Your task to perform on an android device: Search for "macbook air" on target, select the first entry, and add it to the cart. Image 0: 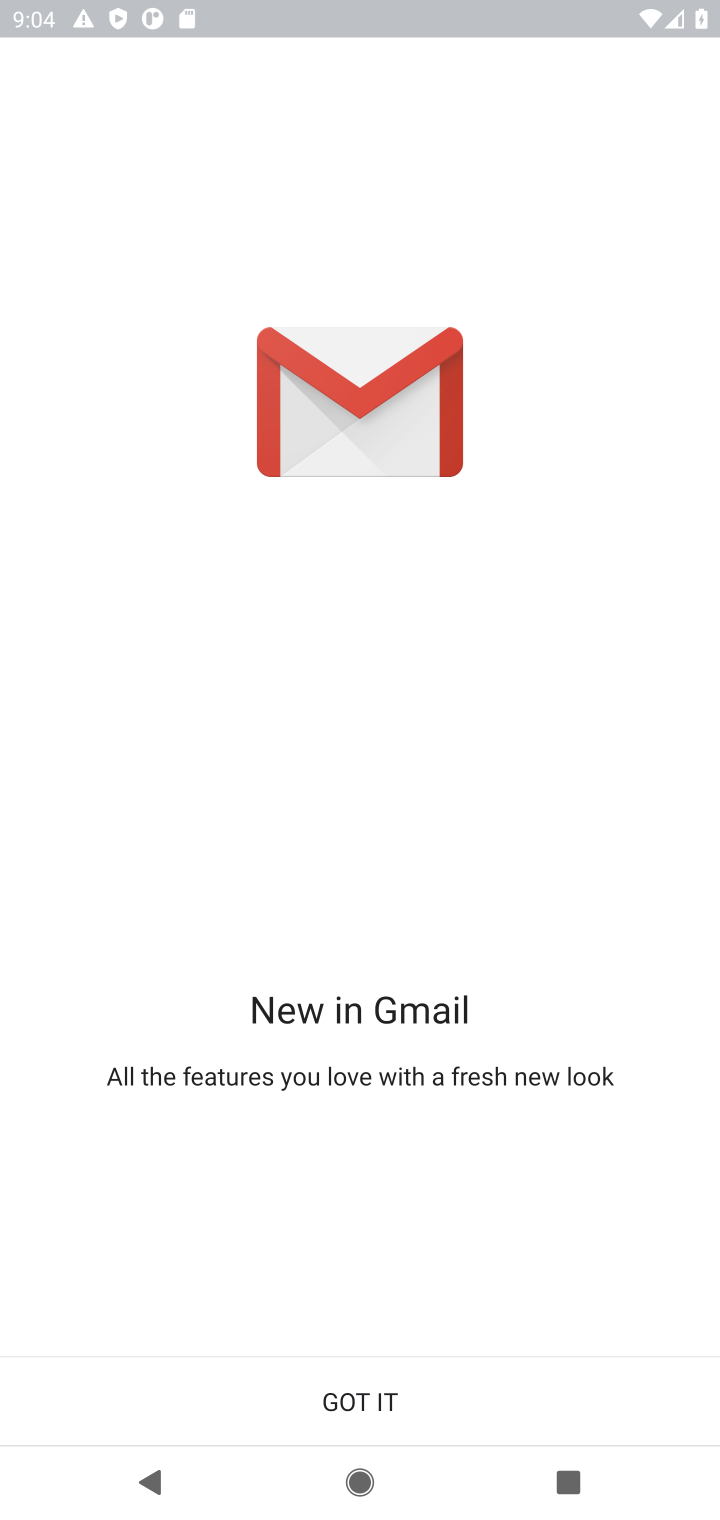
Step 0: press home button
Your task to perform on an android device: Search for "macbook air" on target, select the first entry, and add it to the cart. Image 1: 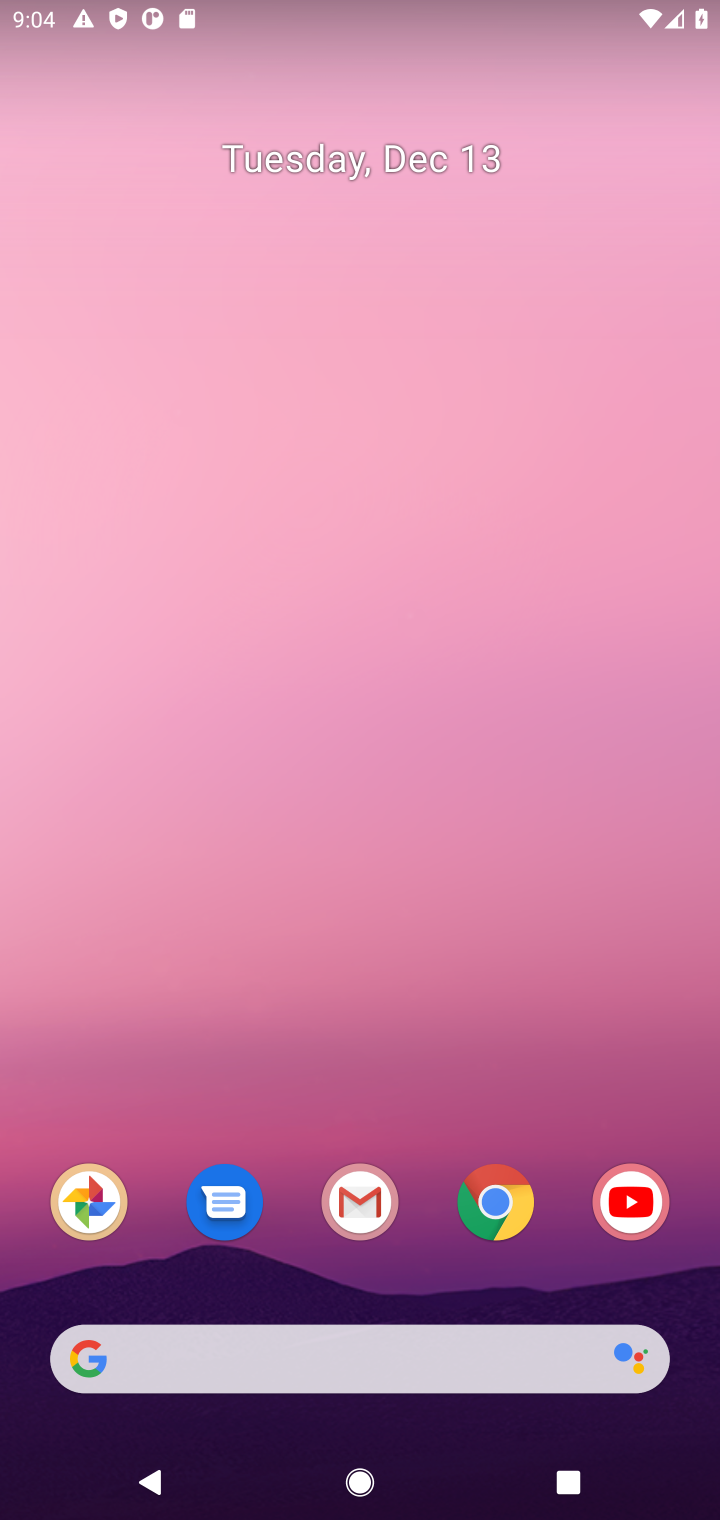
Step 1: click (503, 1209)
Your task to perform on an android device: Search for "macbook air" on target, select the first entry, and add it to the cart. Image 2: 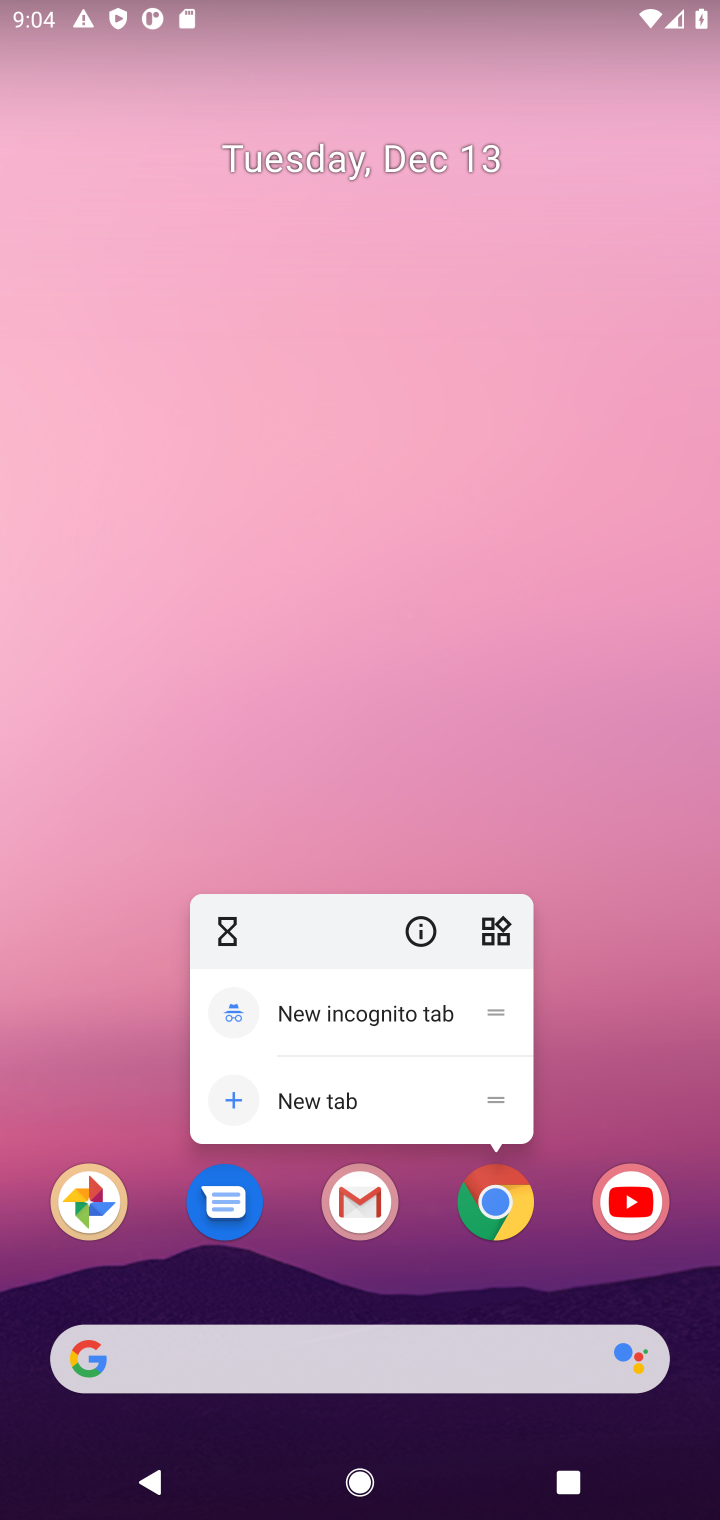
Step 2: click (509, 1209)
Your task to perform on an android device: Search for "macbook air" on target, select the first entry, and add it to the cart. Image 3: 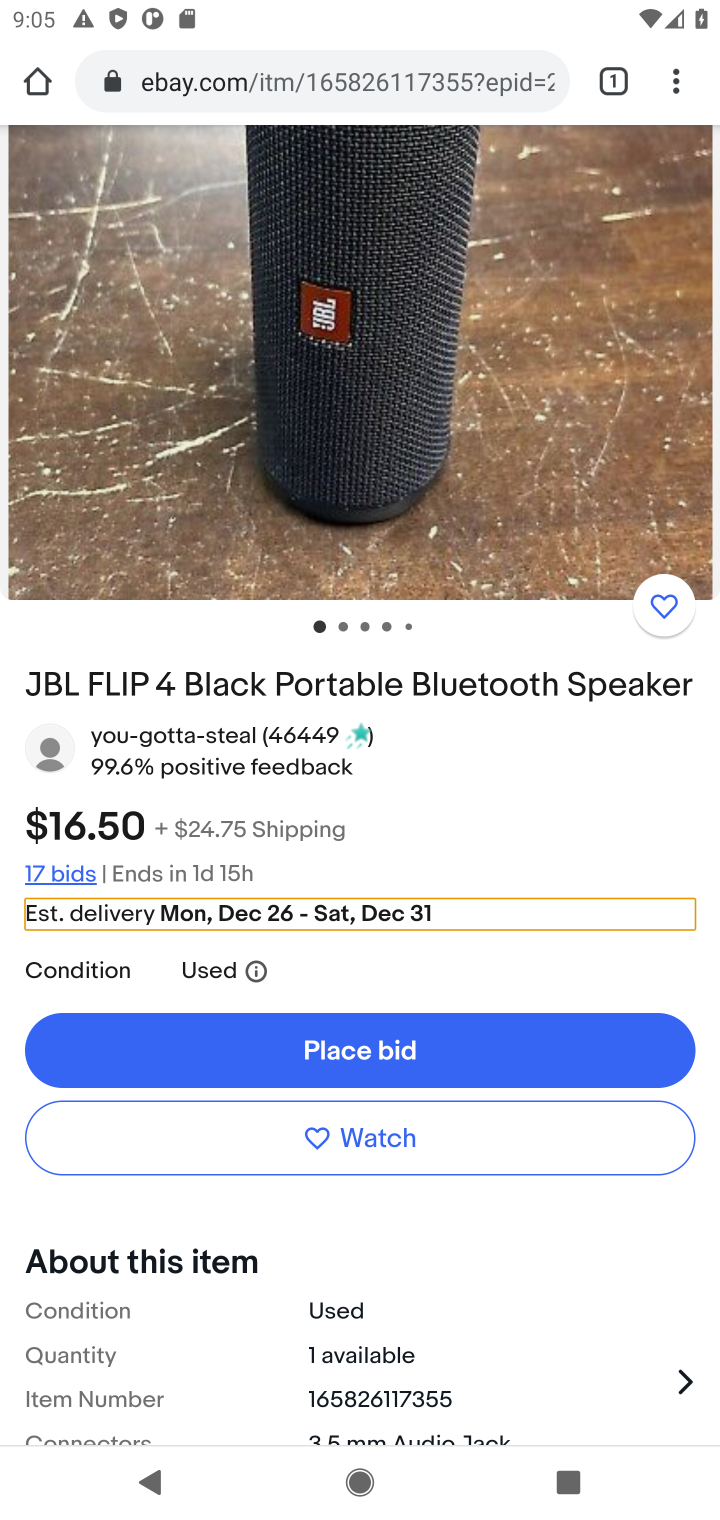
Step 3: click (331, 99)
Your task to perform on an android device: Search for "macbook air" on target, select the first entry, and add it to the cart. Image 4: 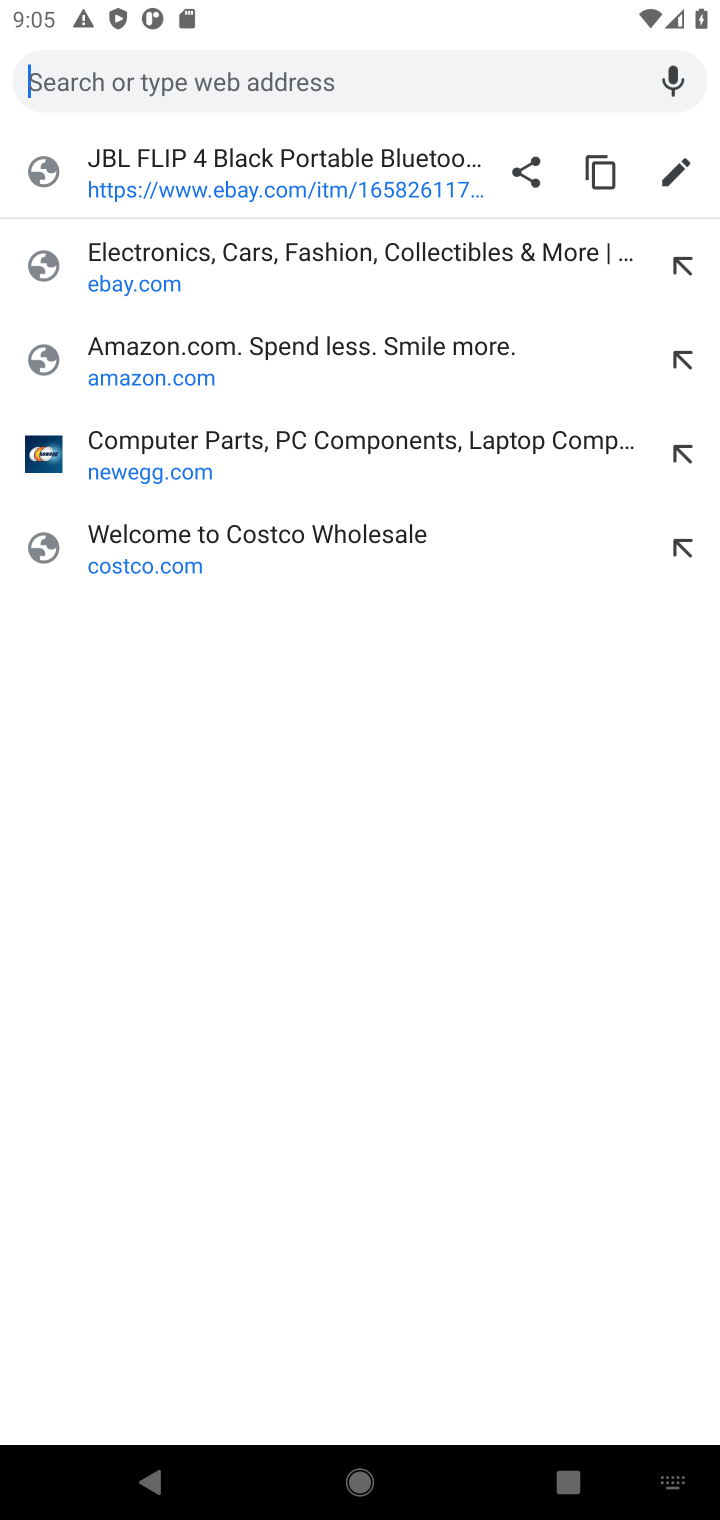
Step 4: type "target.com"
Your task to perform on an android device: Search for "macbook air" on target, select the first entry, and add it to the cart. Image 5: 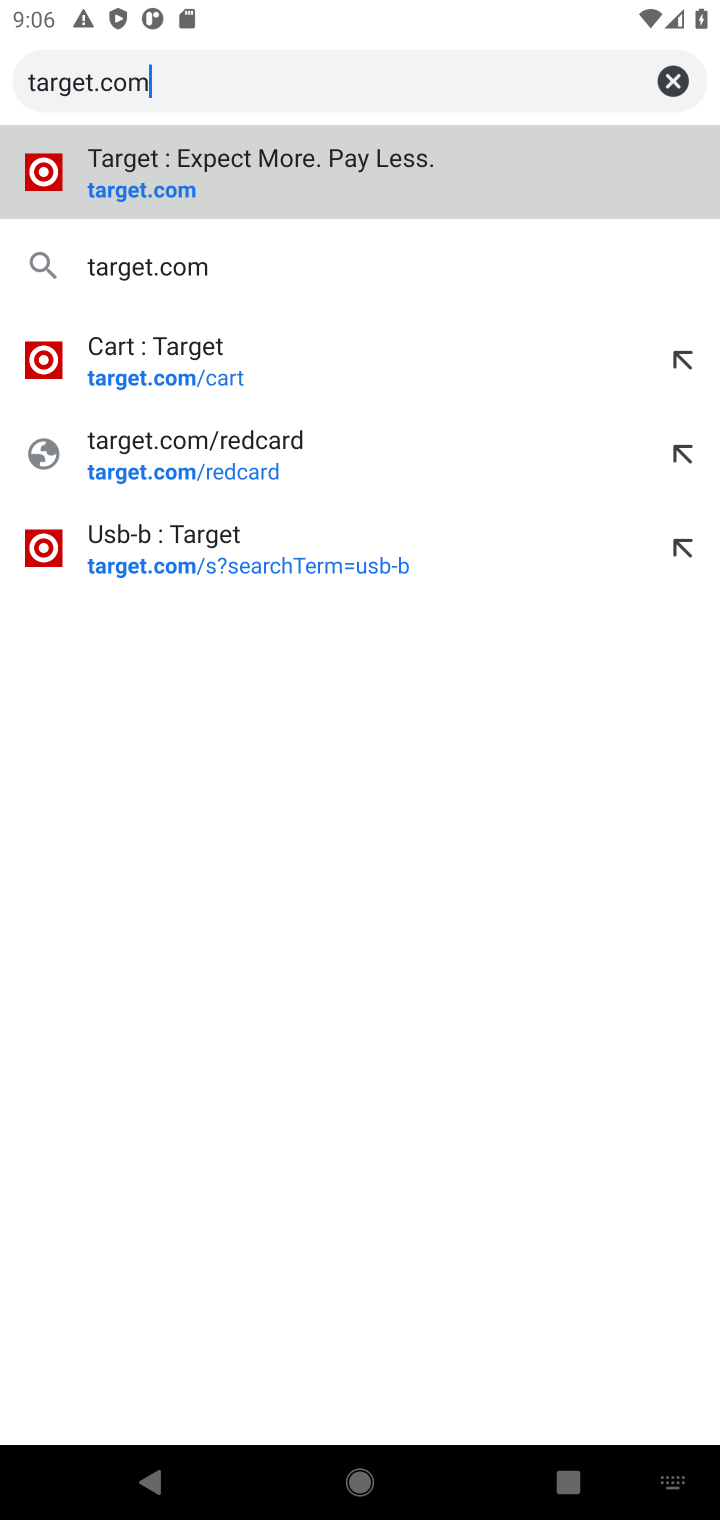
Step 5: click (112, 194)
Your task to perform on an android device: Search for "macbook air" on target, select the first entry, and add it to the cart. Image 6: 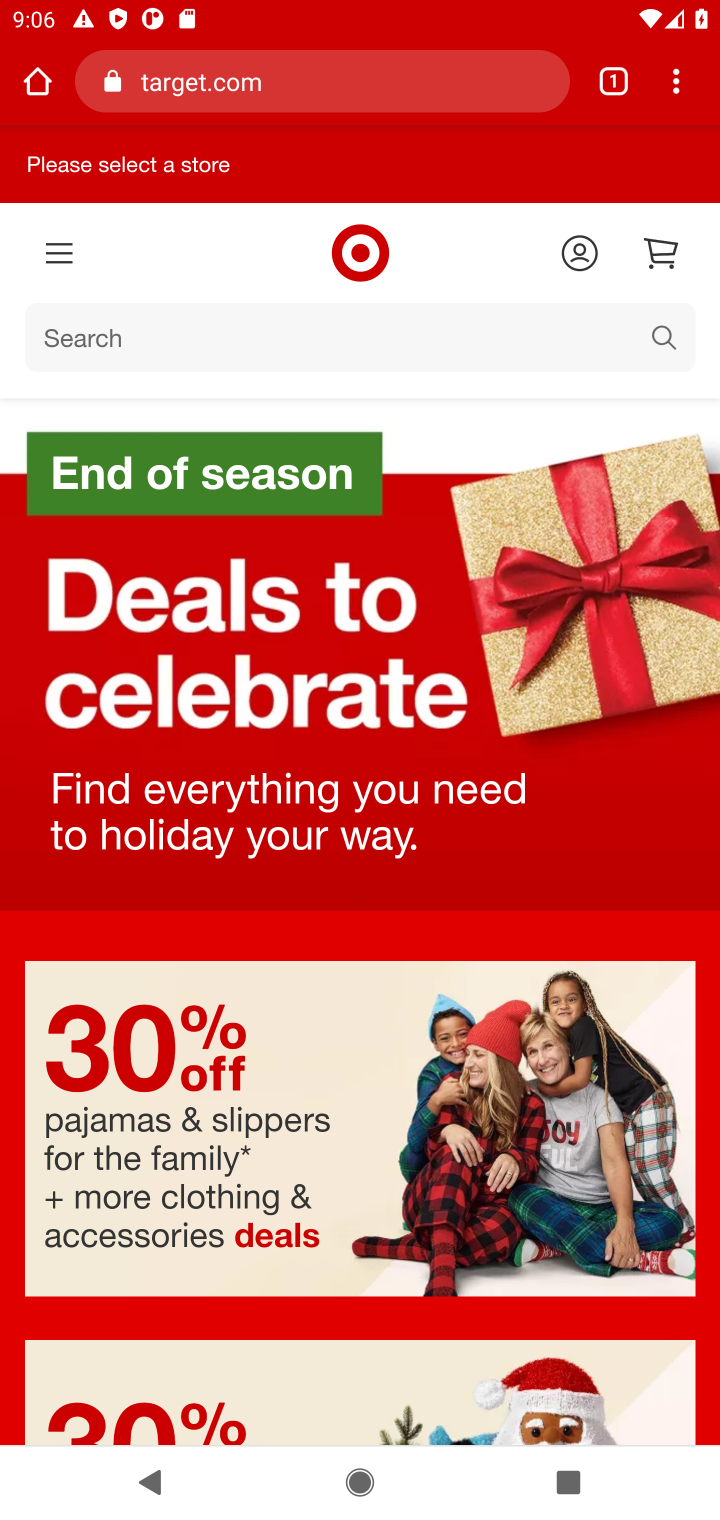
Step 6: click (45, 349)
Your task to perform on an android device: Search for "macbook air" on target, select the first entry, and add it to the cart. Image 7: 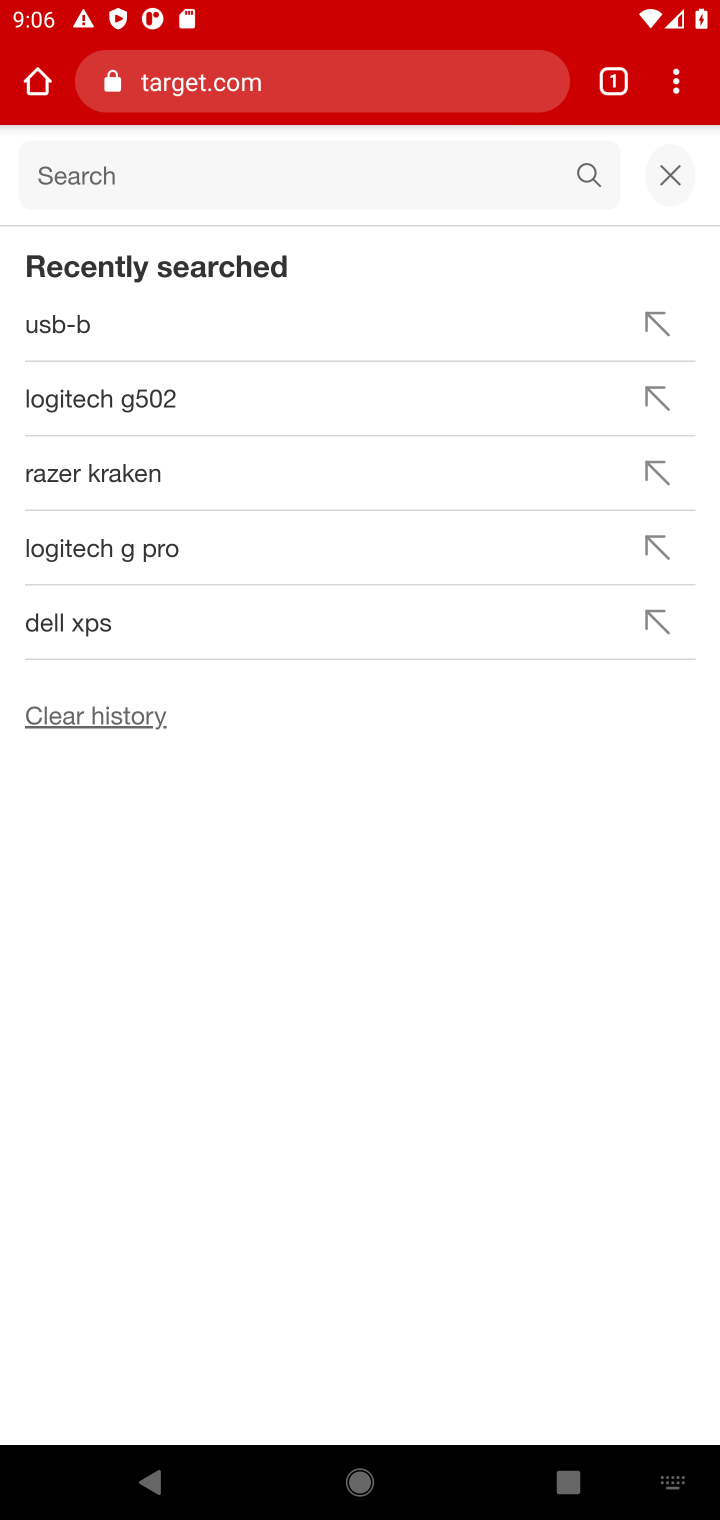
Step 7: type "macbook air"
Your task to perform on an android device: Search for "macbook air" on target, select the first entry, and add it to the cart. Image 8: 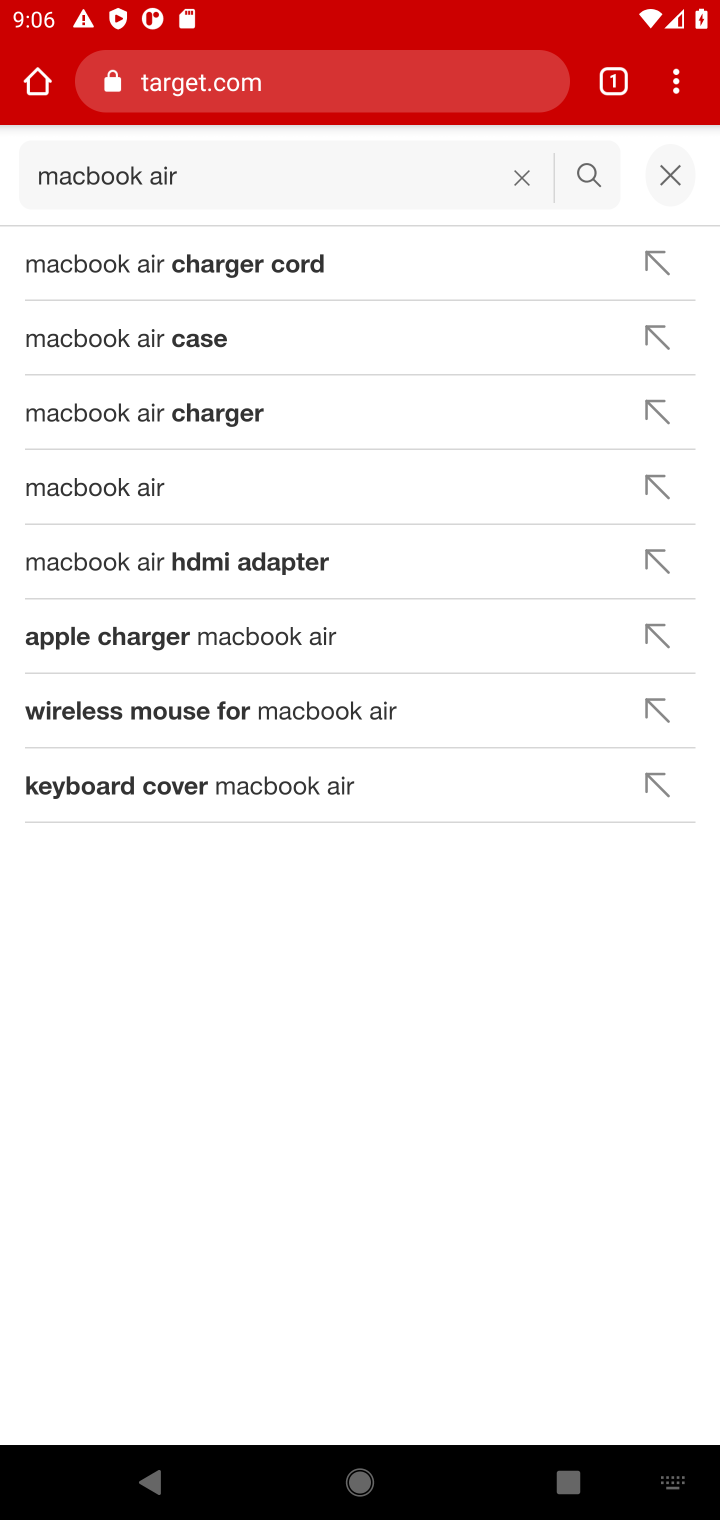
Step 8: click (52, 499)
Your task to perform on an android device: Search for "macbook air" on target, select the first entry, and add it to the cart. Image 9: 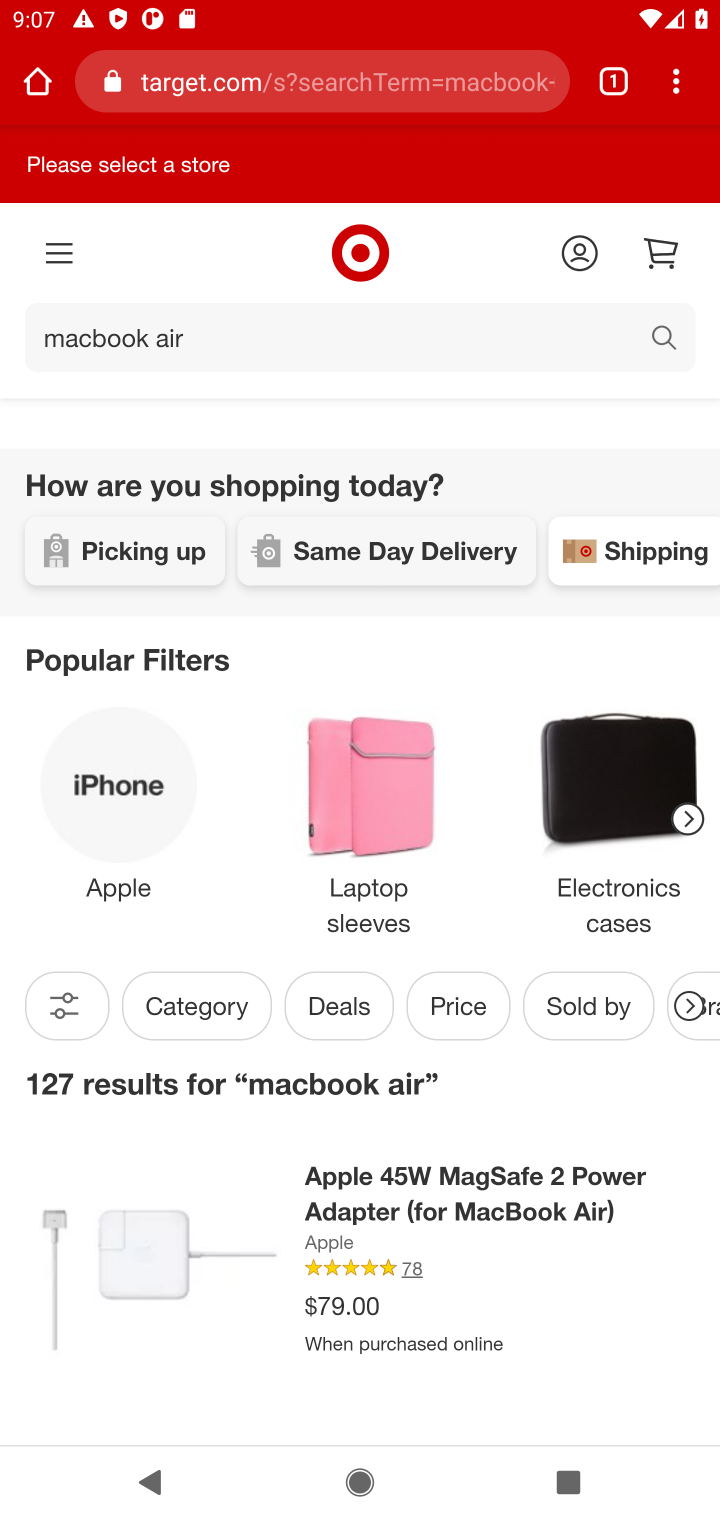
Step 9: drag from (452, 990) to (442, 716)
Your task to perform on an android device: Search for "macbook air" on target, select the first entry, and add it to the cart. Image 10: 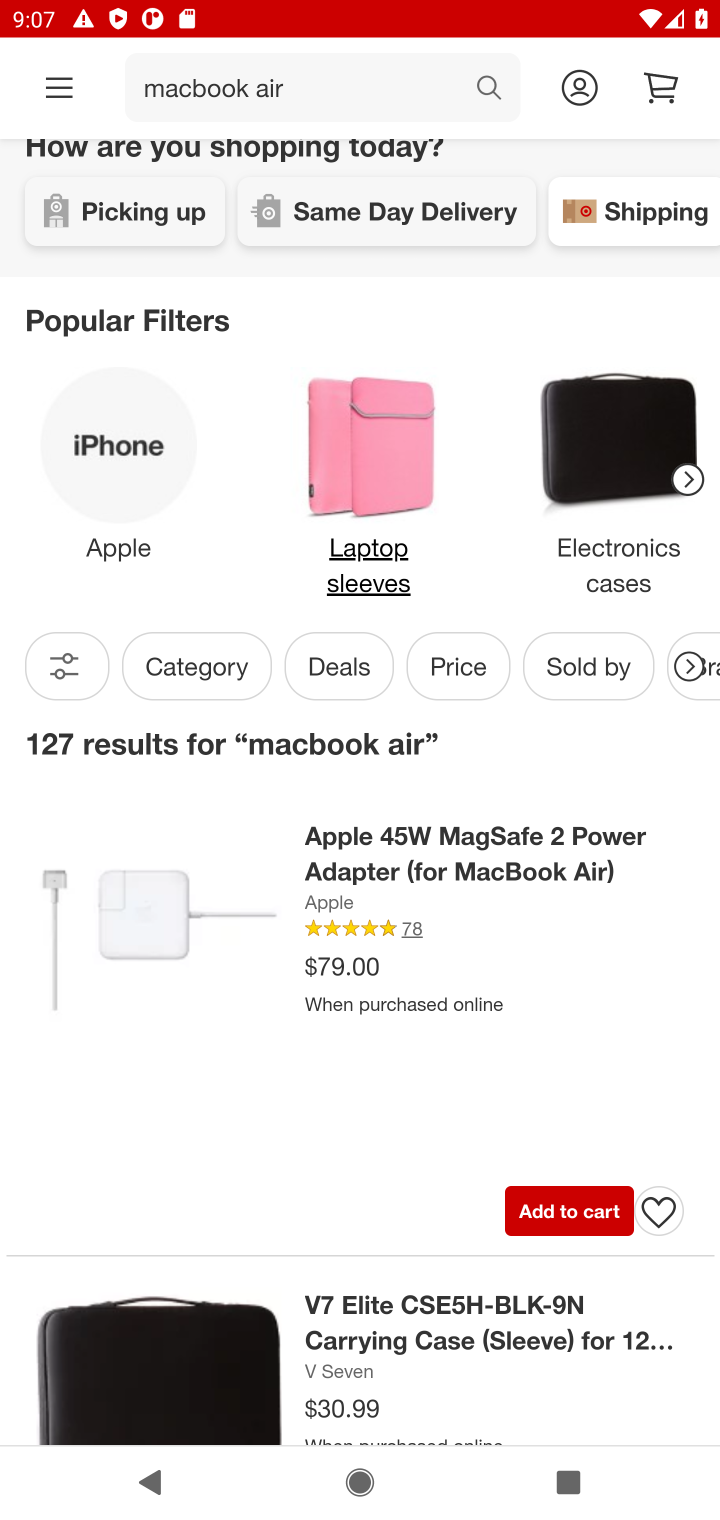
Step 10: click (587, 1202)
Your task to perform on an android device: Search for "macbook air" on target, select the first entry, and add it to the cart. Image 11: 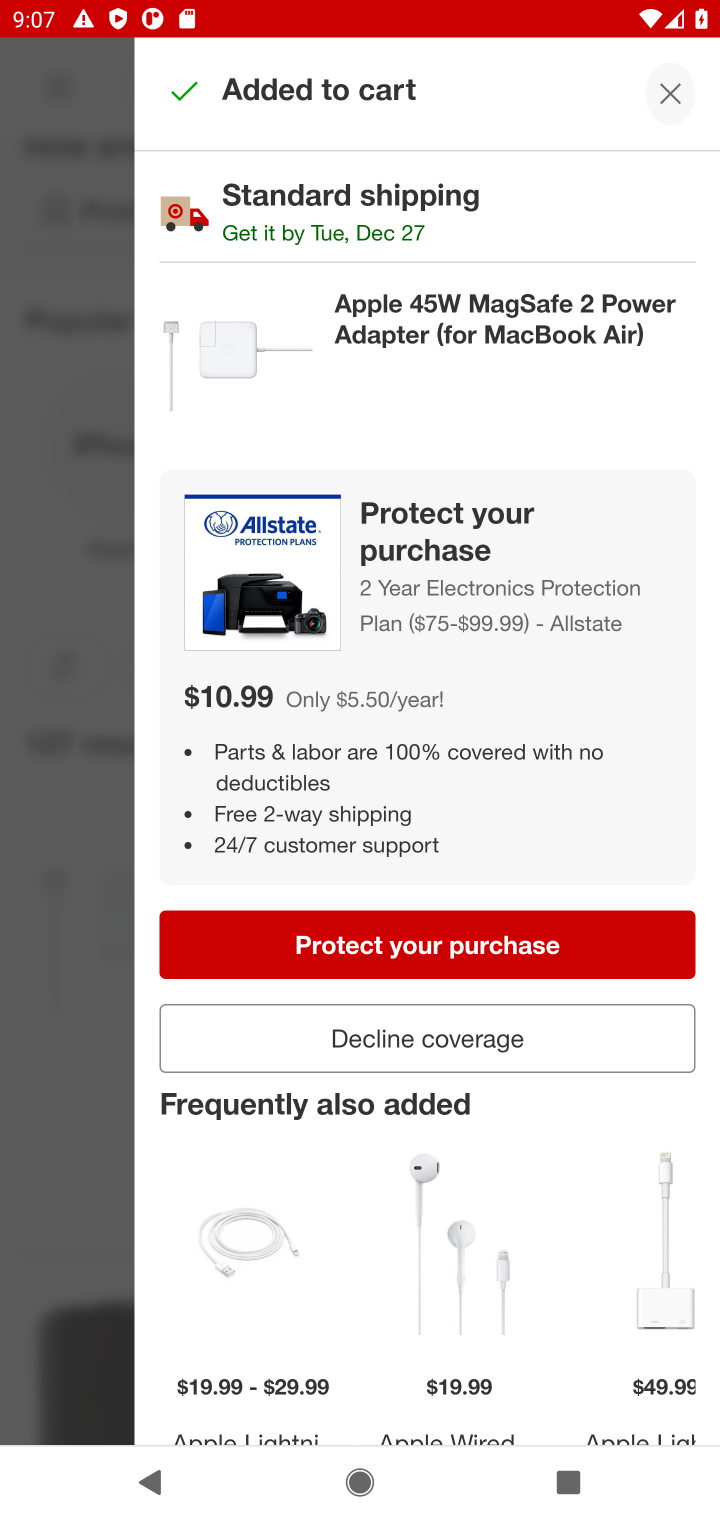
Step 11: task complete